Your task to perform on an android device: open sync settings in chrome Image 0: 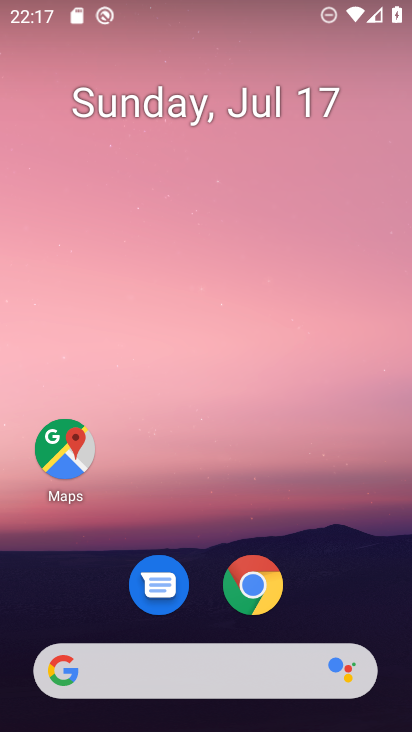
Step 0: press home button
Your task to perform on an android device: open sync settings in chrome Image 1: 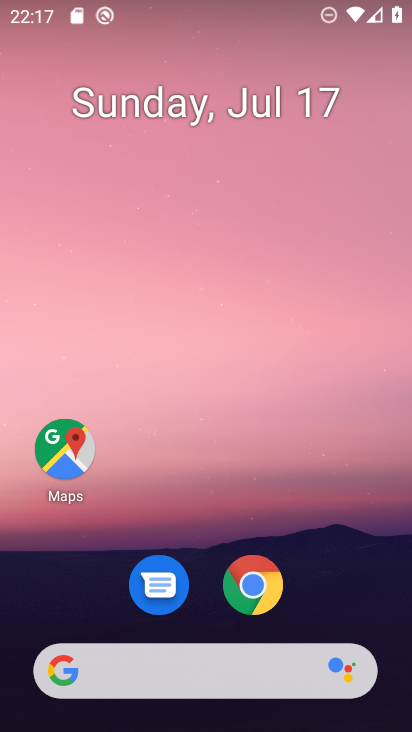
Step 1: click (256, 576)
Your task to perform on an android device: open sync settings in chrome Image 2: 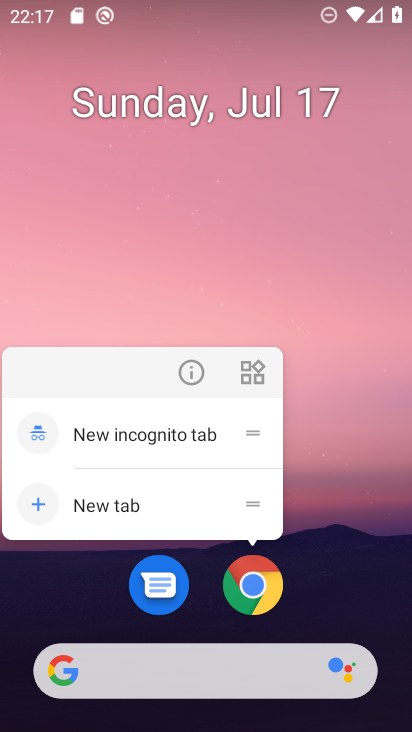
Step 2: click (253, 586)
Your task to perform on an android device: open sync settings in chrome Image 3: 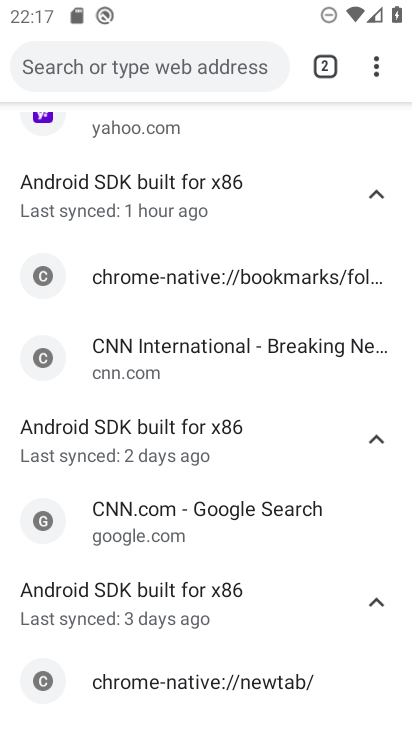
Step 3: drag from (376, 67) to (219, 556)
Your task to perform on an android device: open sync settings in chrome Image 4: 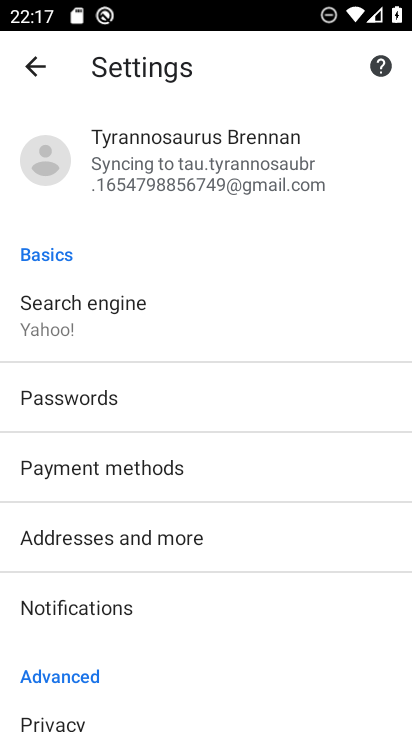
Step 4: click (184, 195)
Your task to perform on an android device: open sync settings in chrome Image 5: 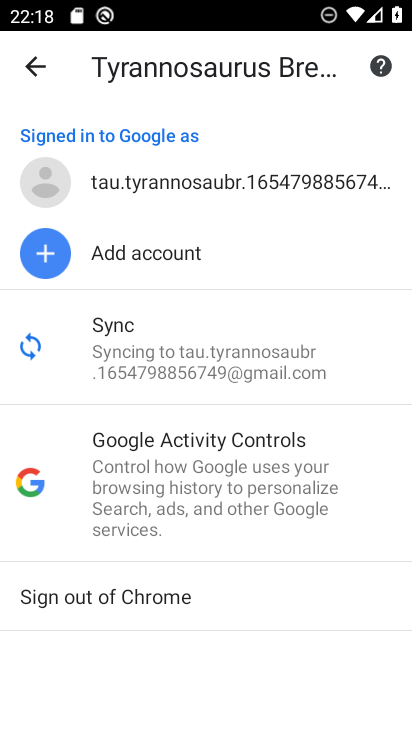
Step 5: click (252, 329)
Your task to perform on an android device: open sync settings in chrome Image 6: 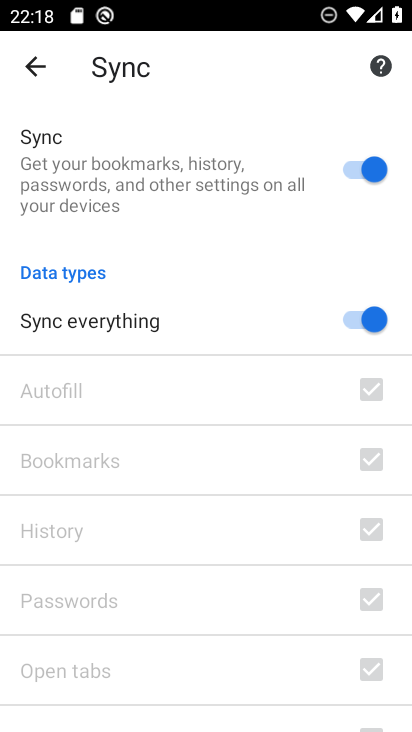
Step 6: task complete